Your task to perform on an android device: turn off data saver in the chrome app Image 0: 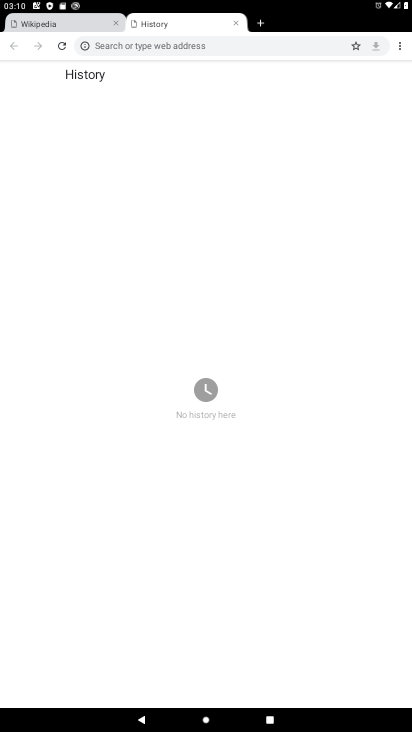
Step 0: press home button
Your task to perform on an android device: turn off data saver in the chrome app Image 1: 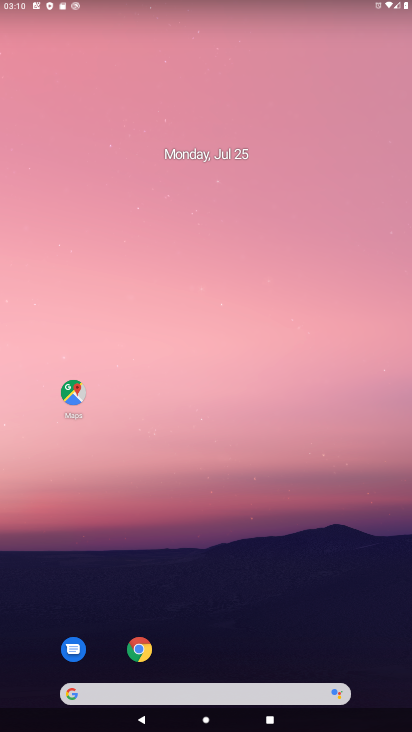
Step 1: click (143, 649)
Your task to perform on an android device: turn off data saver in the chrome app Image 2: 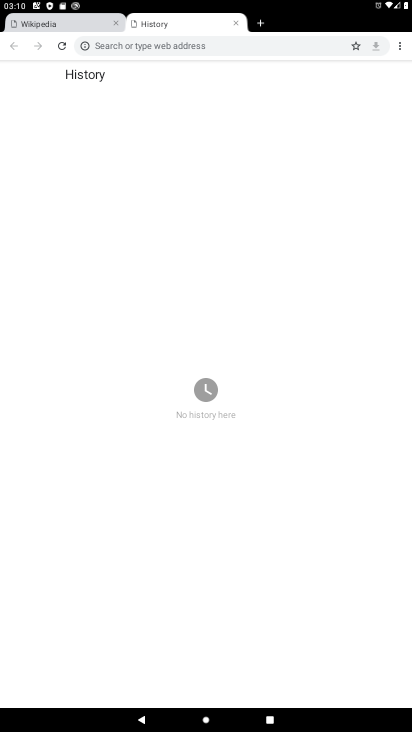
Step 2: click (398, 47)
Your task to perform on an android device: turn off data saver in the chrome app Image 3: 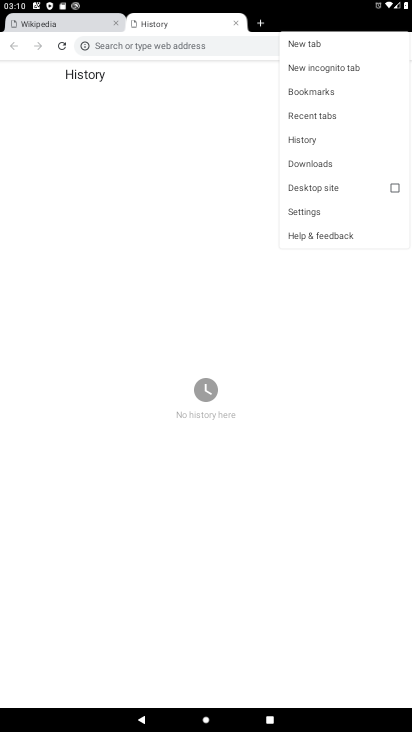
Step 3: click (304, 205)
Your task to perform on an android device: turn off data saver in the chrome app Image 4: 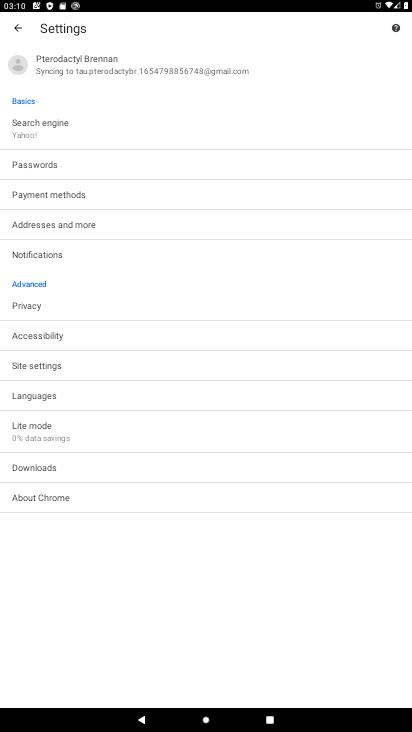
Step 4: click (30, 425)
Your task to perform on an android device: turn off data saver in the chrome app Image 5: 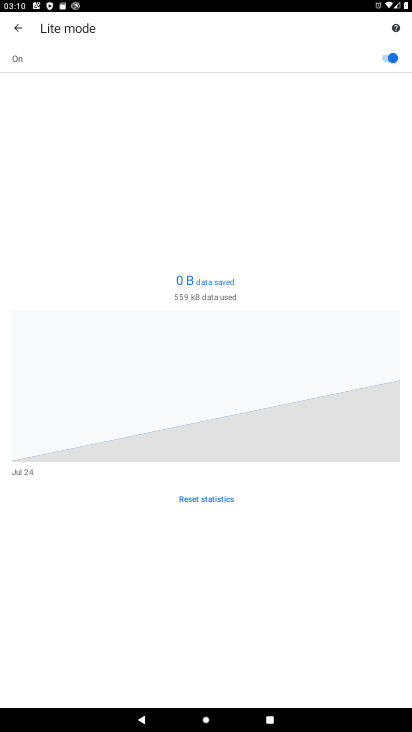
Step 5: click (382, 53)
Your task to perform on an android device: turn off data saver in the chrome app Image 6: 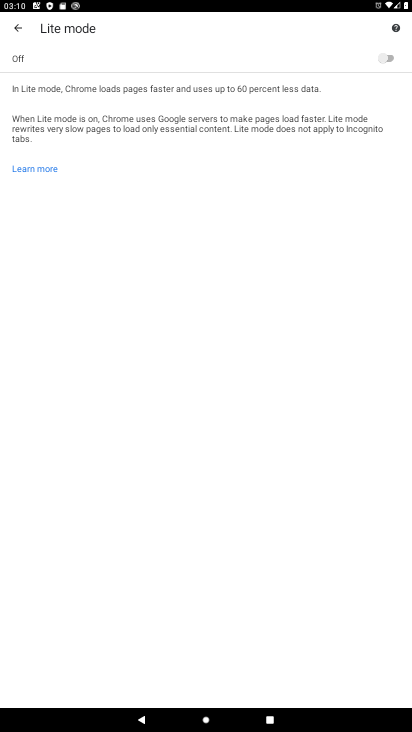
Step 6: task complete